Your task to perform on an android device: move an email to a new category in the gmail app Image 0: 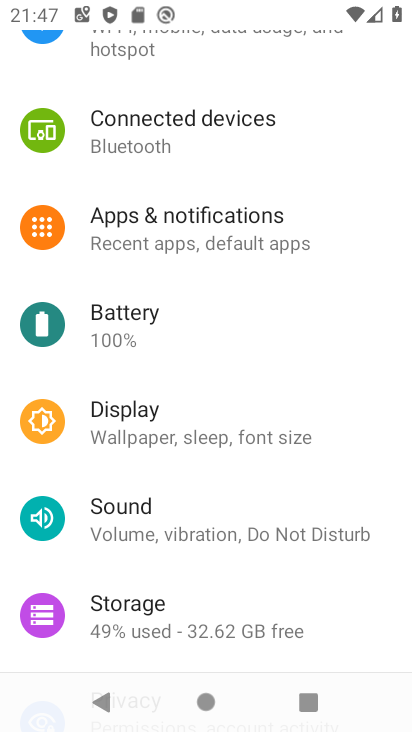
Step 0: press home button
Your task to perform on an android device: move an email to a new category in the gmail app Image 1: 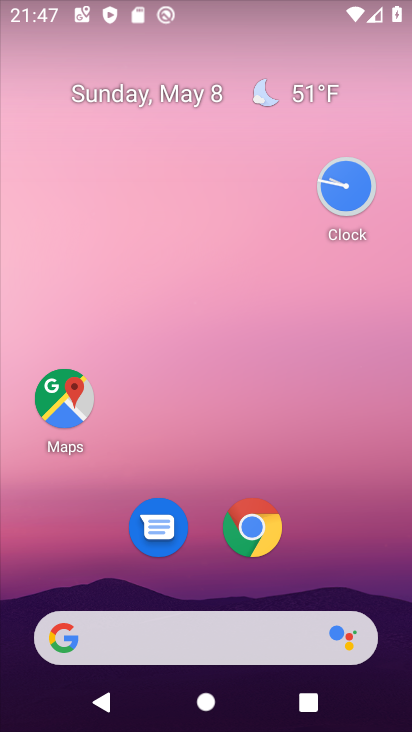
Step 1: drag from (245, 684) to (404, 179)
Your task to perform on an android device: move an email to a new category in the gmail app Image 2: 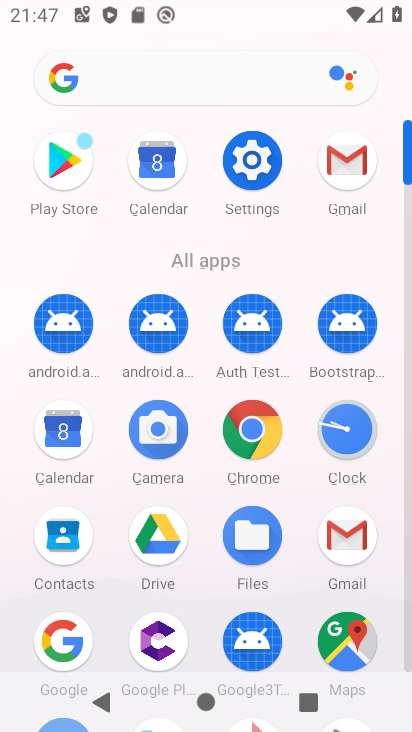
Step 2: click (353, 166)
Your task to perform on an android device: move an email to a new category in the gmail app Image 3: 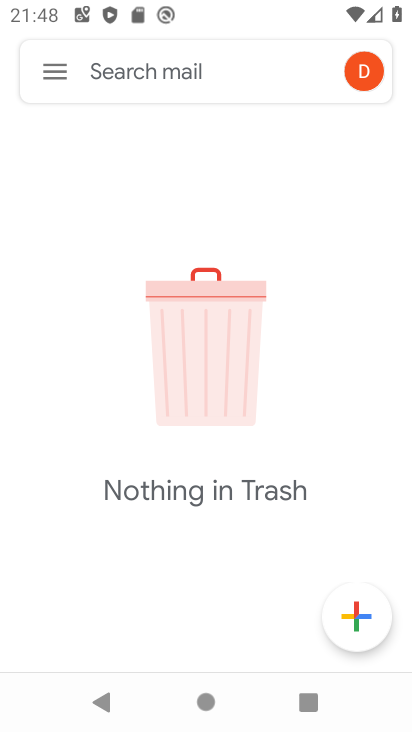
Step 3: click (65, 74)
Your task to perform on an android device: move an email to a new category in the gmail app Image 4: 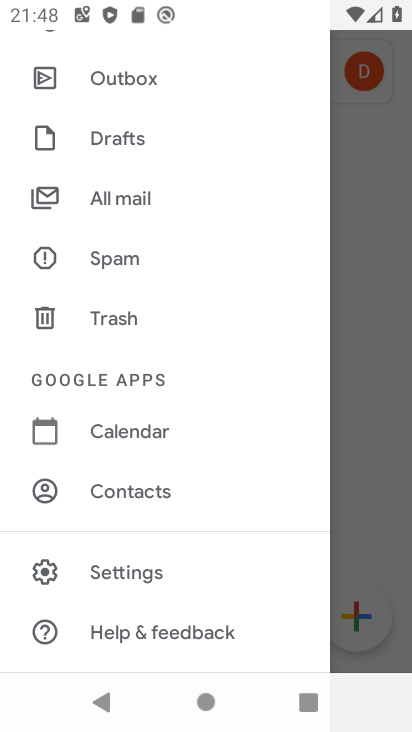
Step 4: click (119, 191)
Your task to perform on an android device: move an email to a new category in the gmail app Image 5: 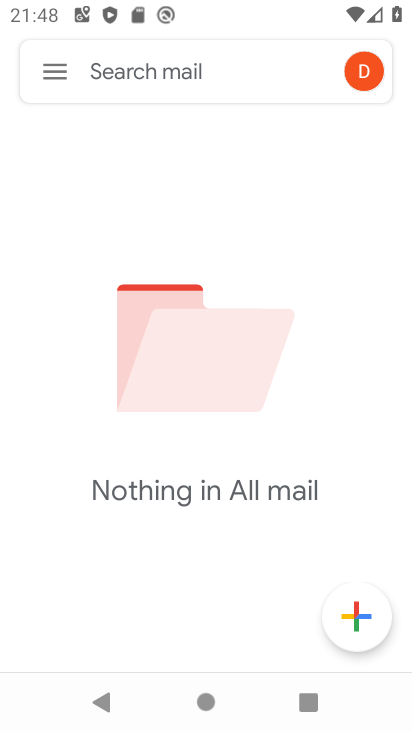
Step 5: task complete